Your task to perform on an android device: empty trash in the gmail app Image 0: 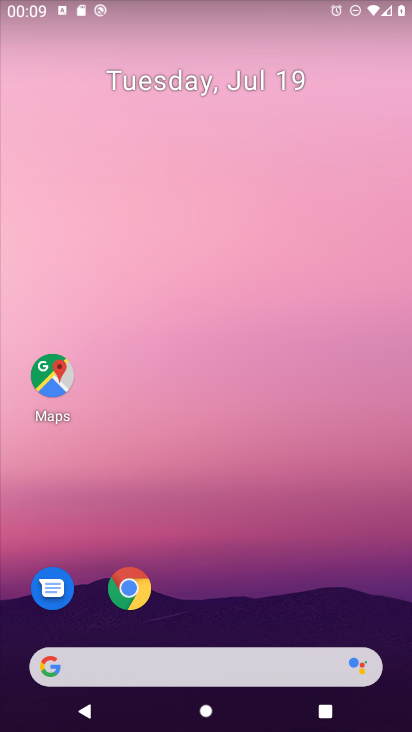
Step 0: drag from (386, 630) to (344, 71)
Your task to perform on an android device: empty trash in the gmail app Image 1: 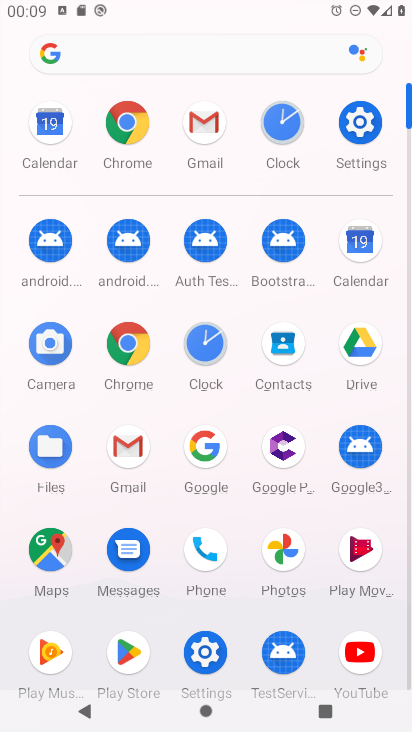
Step 1: click (127, 448)
Your task to perform on an android device: empty trash in the gmail app Image 2: 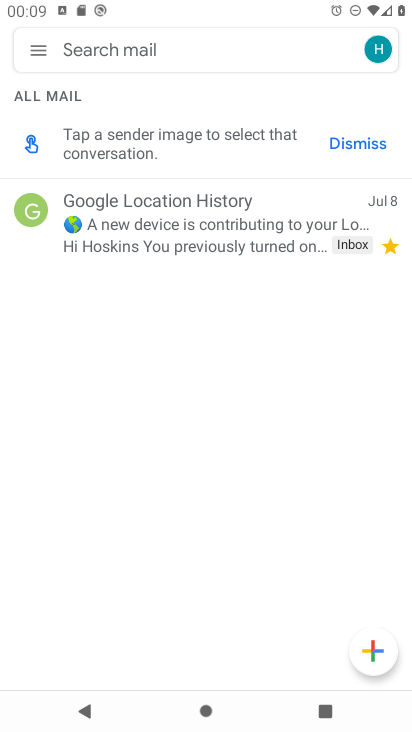
Step 2: click (39, 55)
Your task to perform on an android device: empty trash in the gmail app Image 3: 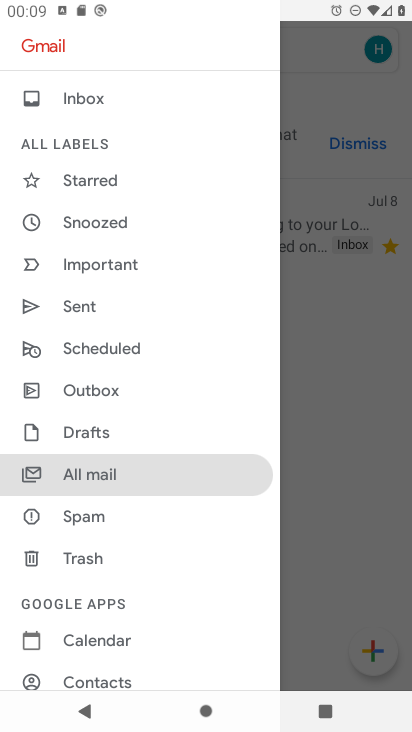
Step 3: click (82, 559)
Your task to perform on an android device: empty trash in the gmail app Image 4: 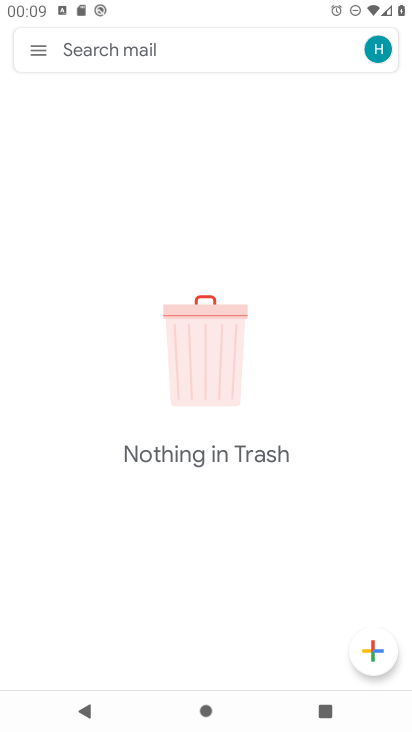
Step 4: task complete